Your task to perform on an android device: Open wifi settings Image 0: 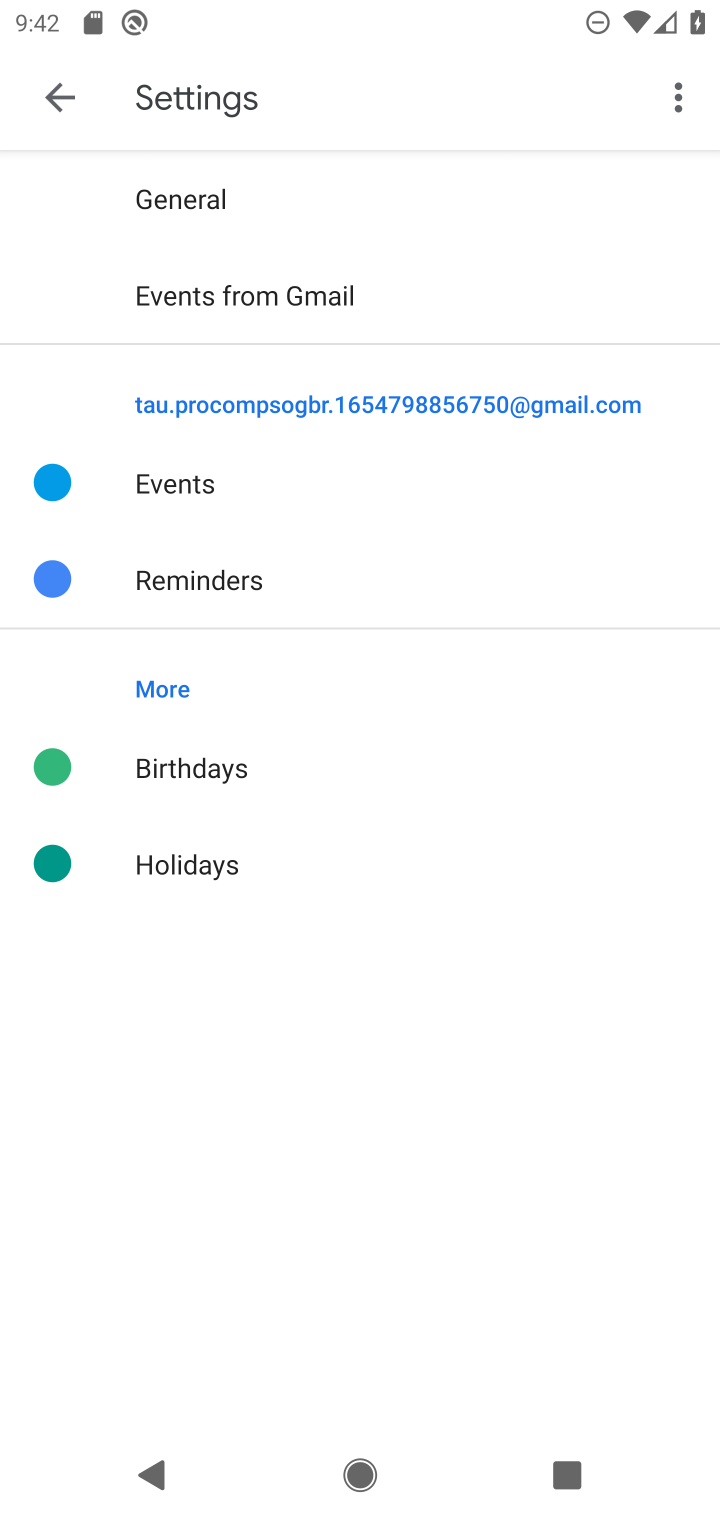
Step 0: press home button
Your task to perform on an android device: Open wifi settings Image 1: 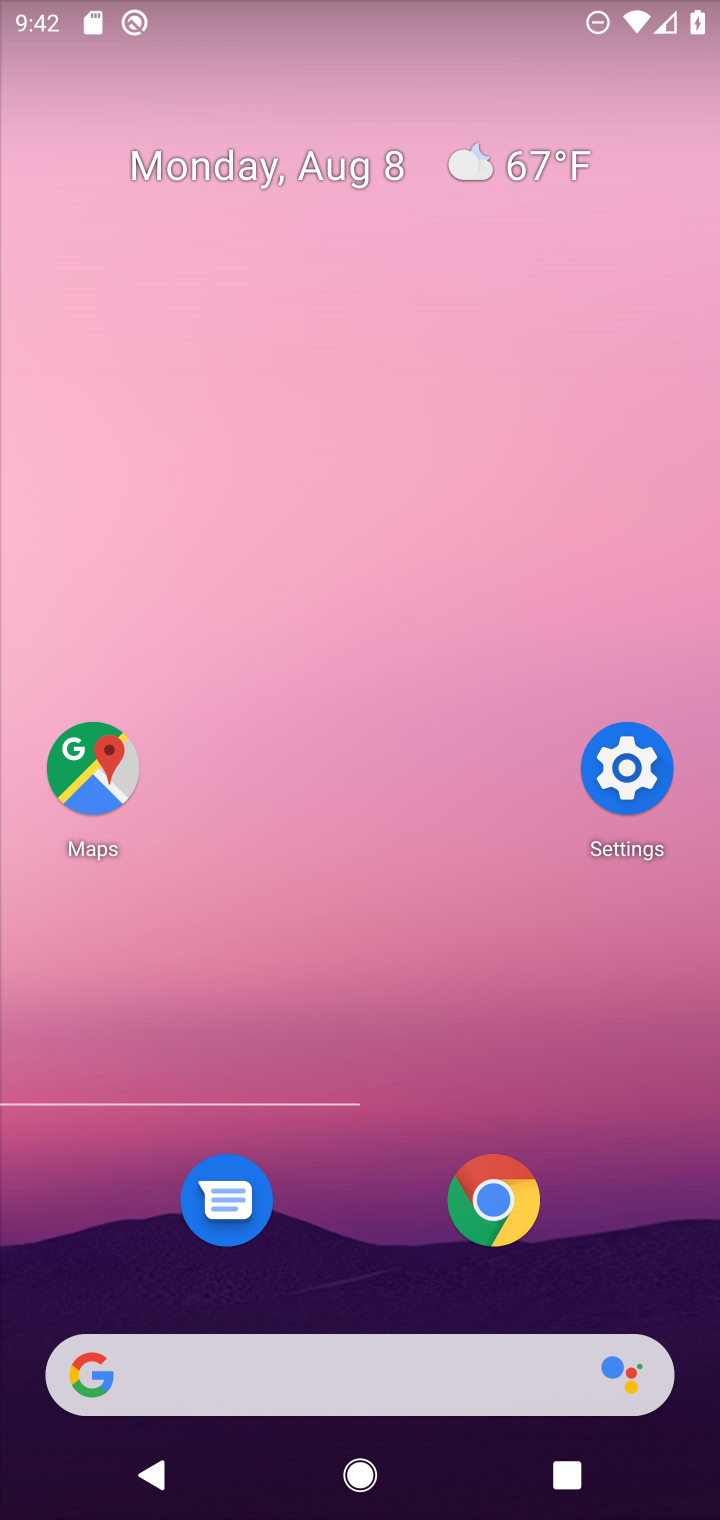
Step 1: click (623, 767)
Your task to perform on an android device: Open wifi settings Image 2: 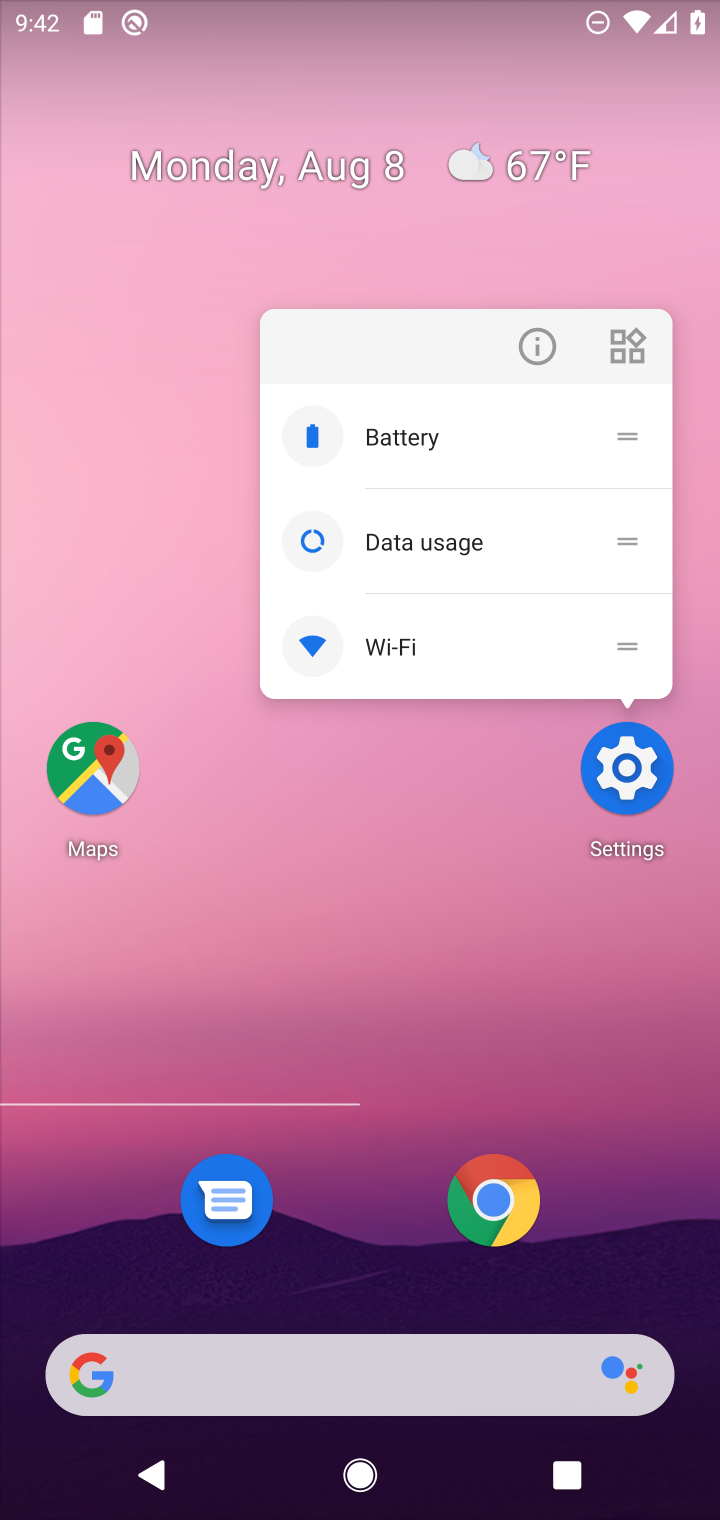
Step 2: click (623, 769)
Your task to perform on an android device: Open wifi settings Image 3: 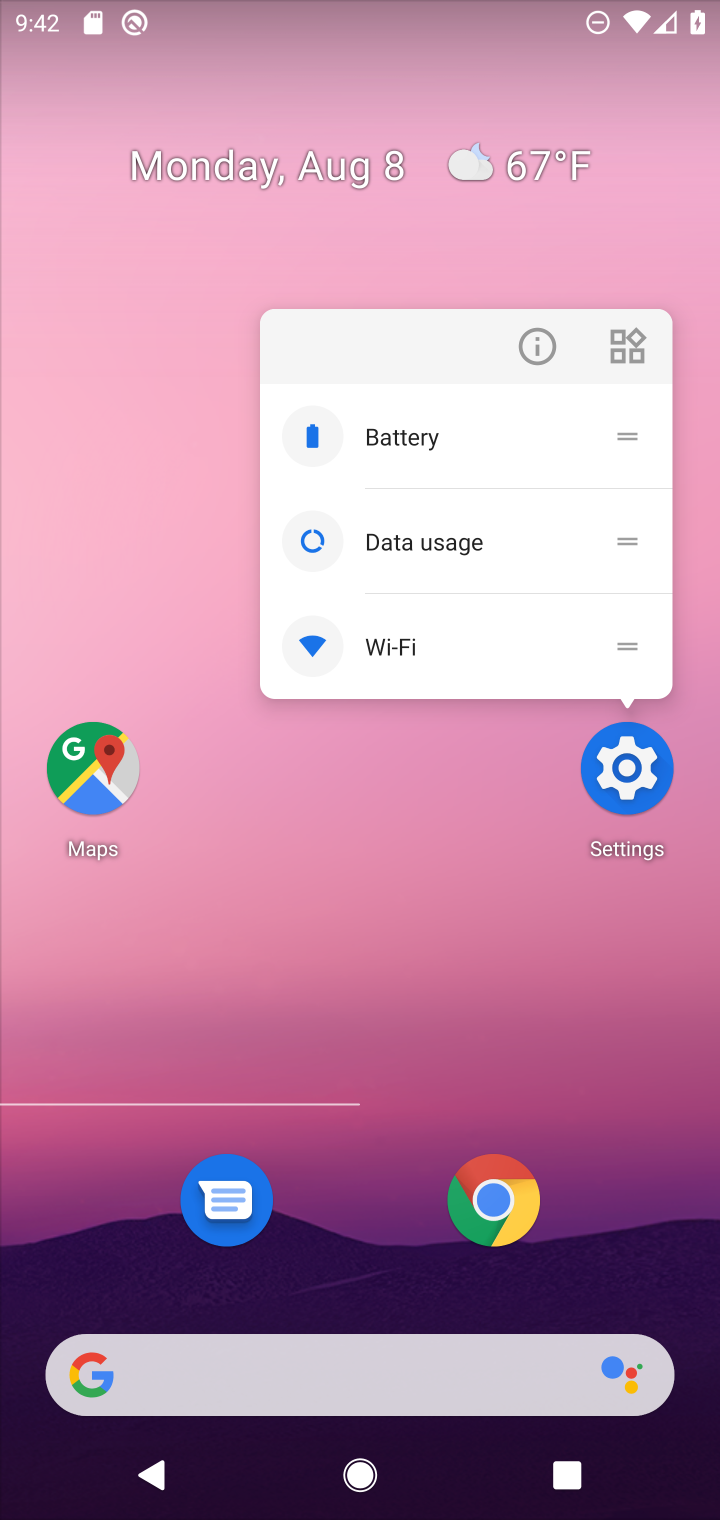
Step 3: click (627, 774)
Your task to perform on an android device: Open wifi settings Image 4: 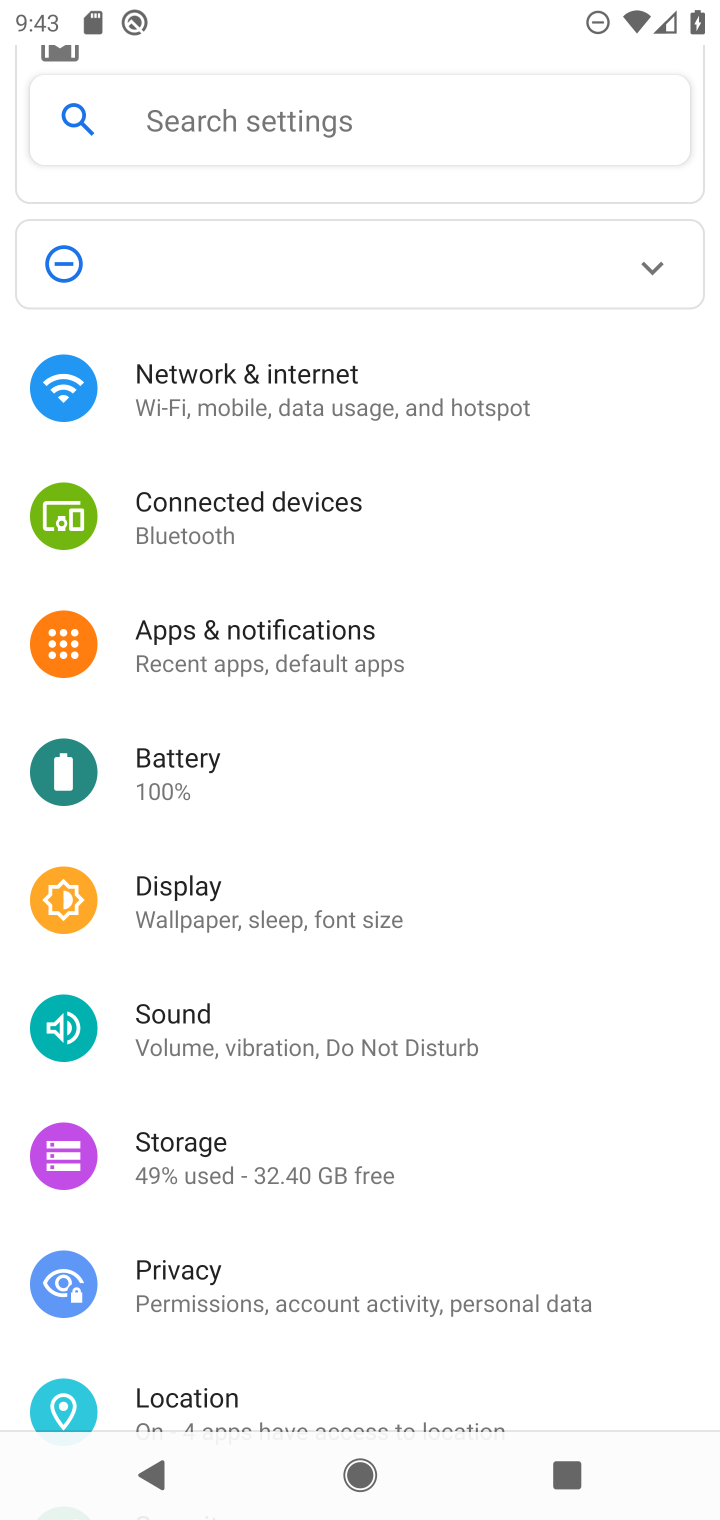
Step 4: click (263, 384)
Your task to perform on an android device: Open wifi settings Image 5: 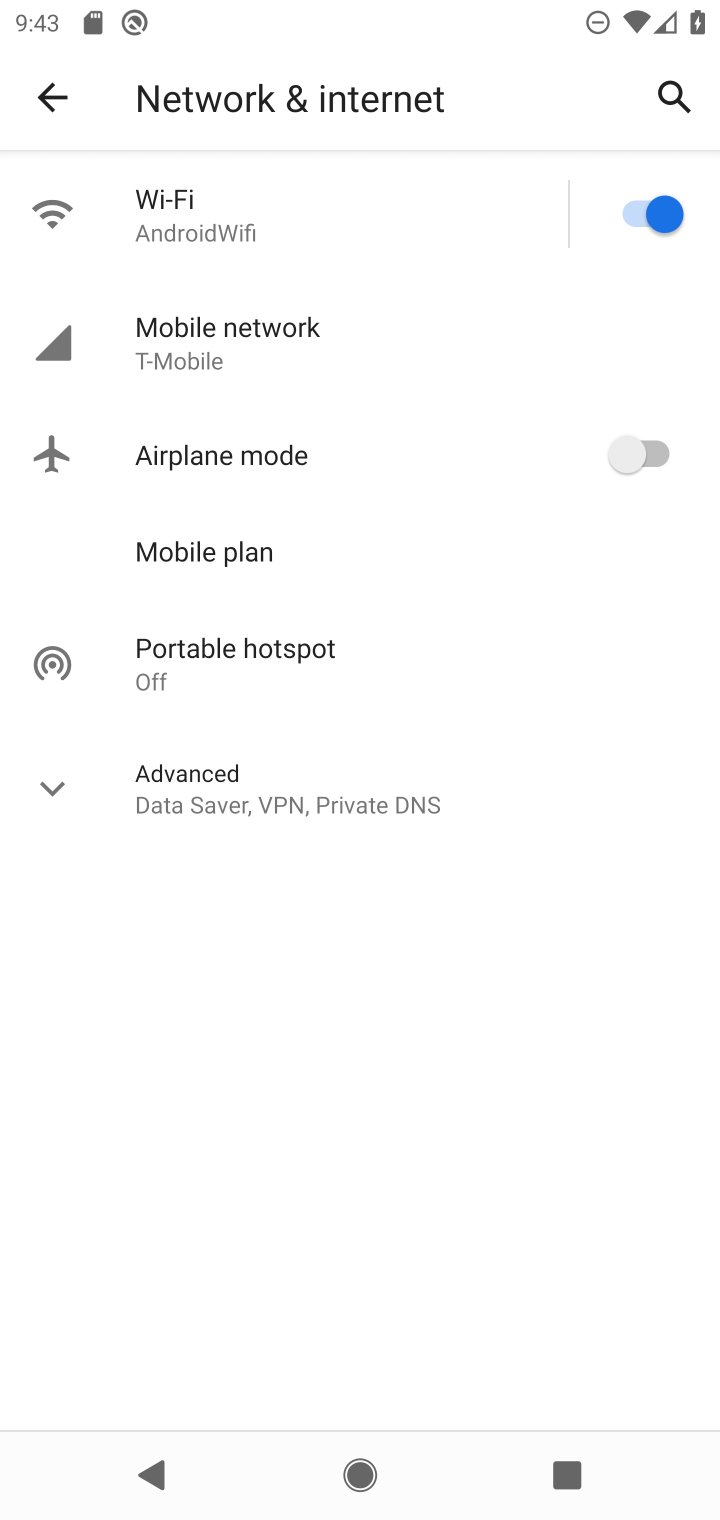
Step 5: click (156, 233)
Your task to perform on an android device: Open wifi settings Image 6: 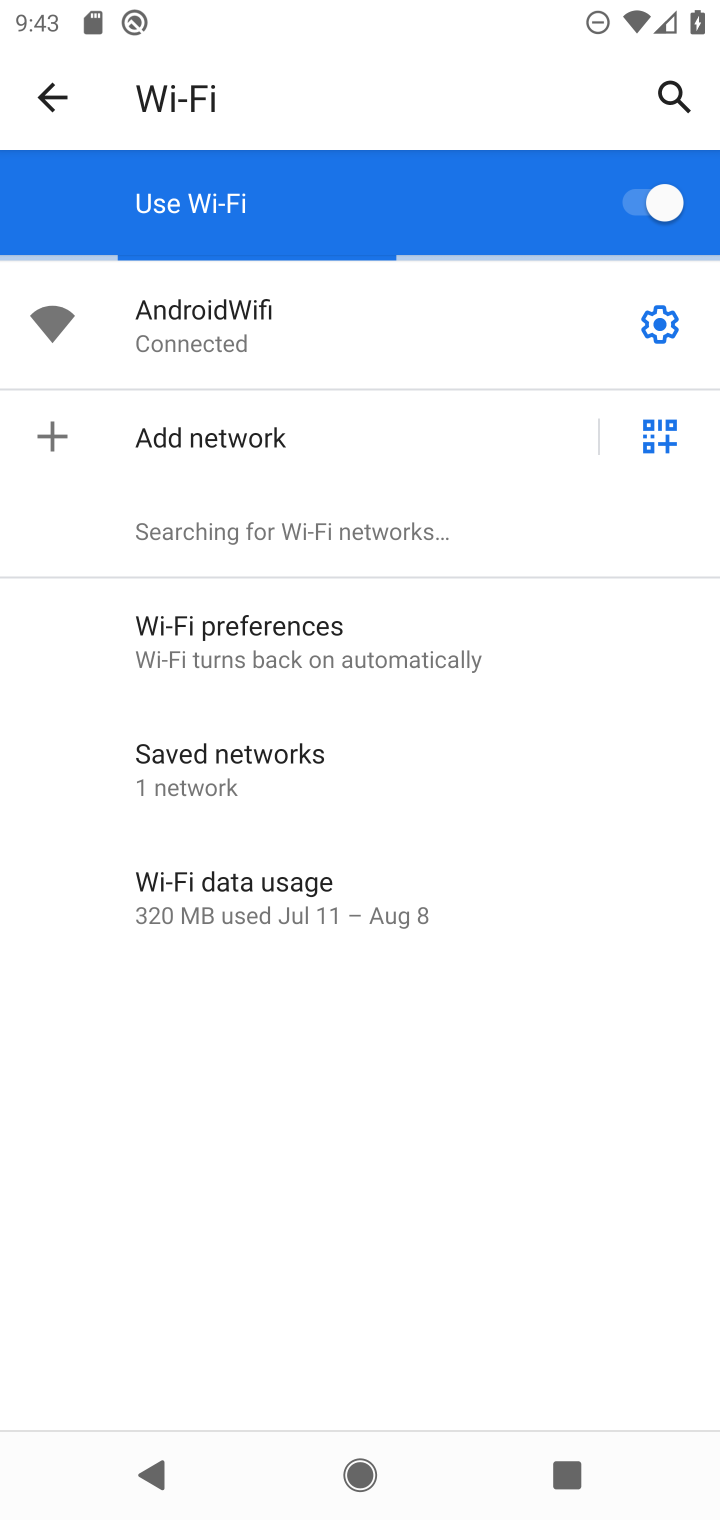
Step 6: task complete